Your task to perform on an android device: add a contact Image 0: 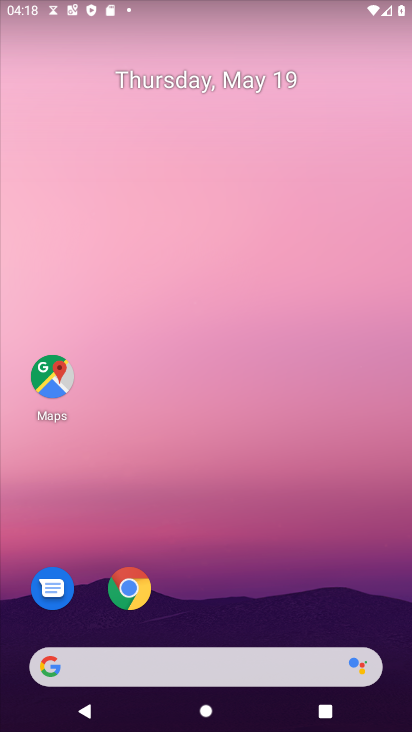
Step 0: drag from (219, 591) to (255, 168)
Your task to perform on an android device: add a contact Image 1: 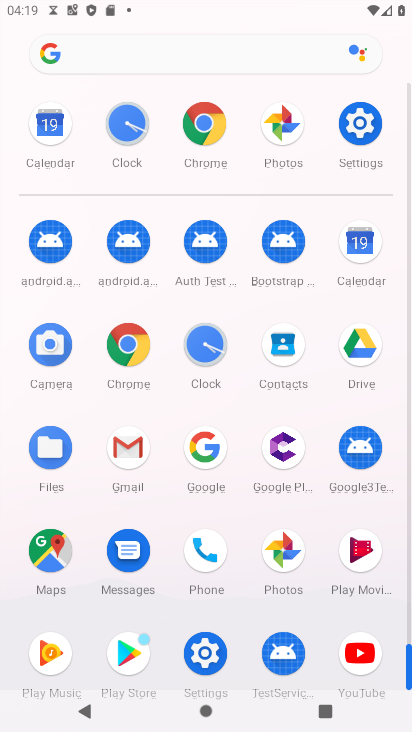
Step 1: click (287, 345)
Your task to perform on an android device: add a contact Image 2: 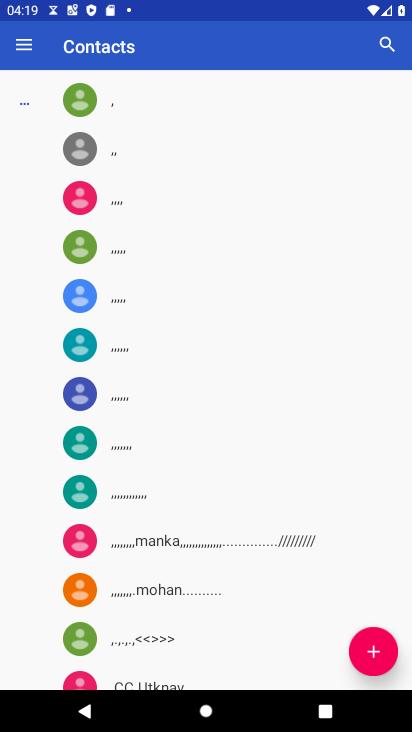
Step 2: click (355, 643)
Your task to perform on an android device: add a contact Image 3: 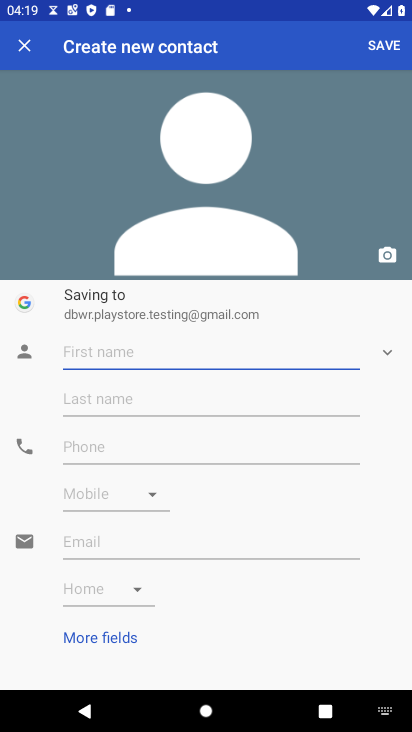
Step 3: type "flockk"
Your task to perform on an android device: add a contact Image 4: 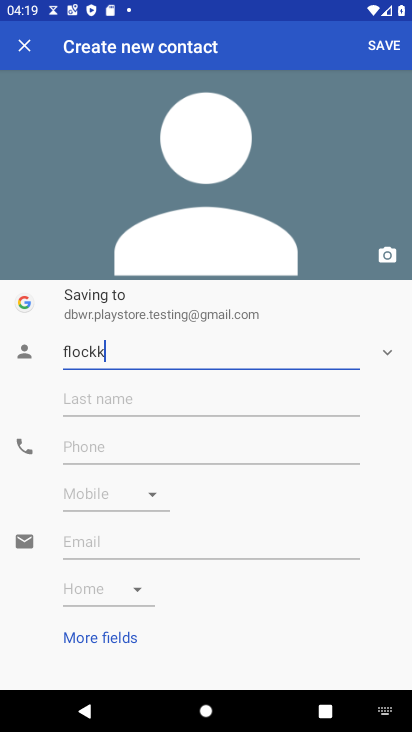
Step 4: click (387, 37)
Your task to perform on an android device: add a contact Image 5: 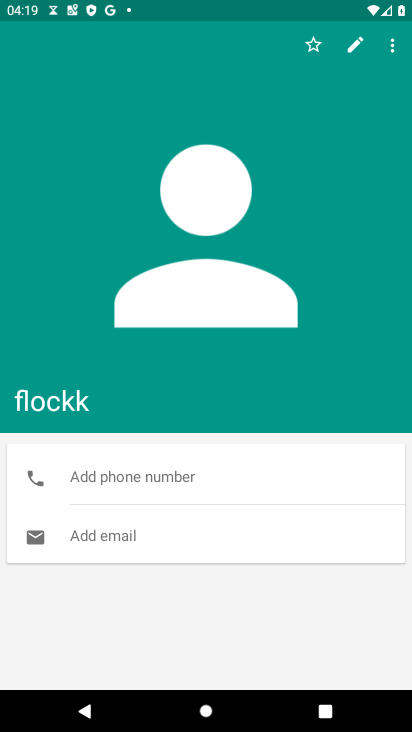
Step 5: task complete